Your task to perform on an android device: turn on the 24-hour format for clock Image 0: 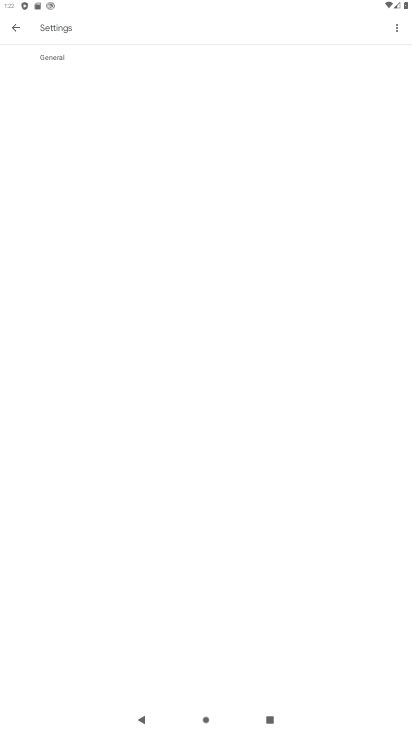
Step 0: press home button
Your task to perform on an android device: turn on the 24-hour format for clock Image 1: 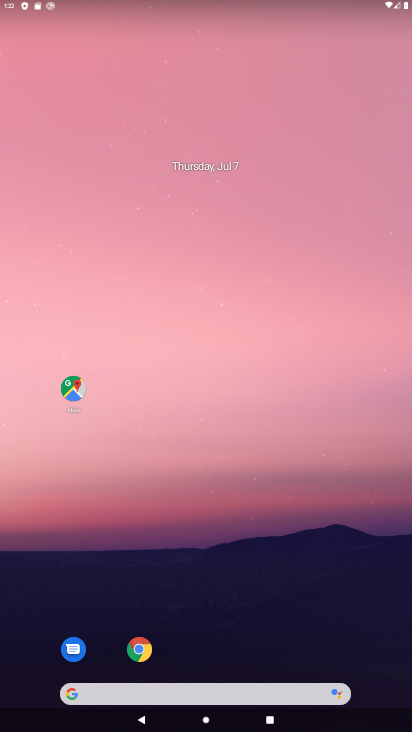
Step 1: drag from (369, 4) to (369, 42)
Your task to perform on an android device: turn on the 24-hour format for clock Image 2: 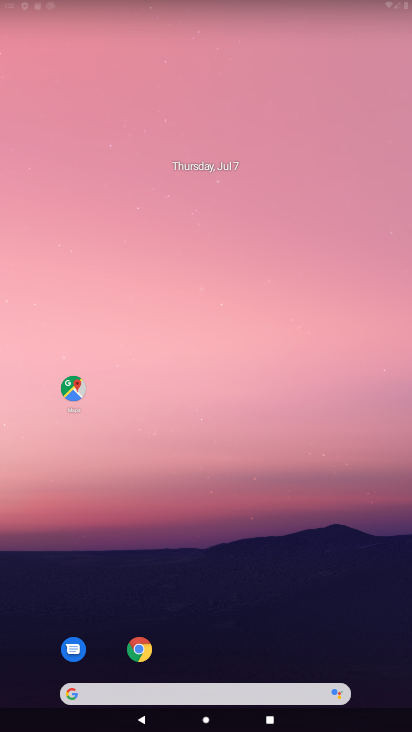
Step 2: drag from (321, 543) to (411, 21)
Your task to perform on an android device: turn on the 24-hour format for clock Image 3: 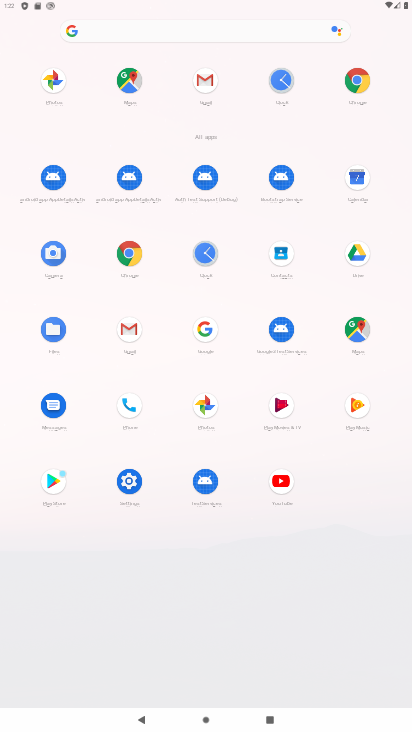
Step 3: click (201, 253)
Your task to perform on an android device: turn on the 24-hour format for clock Image 4: 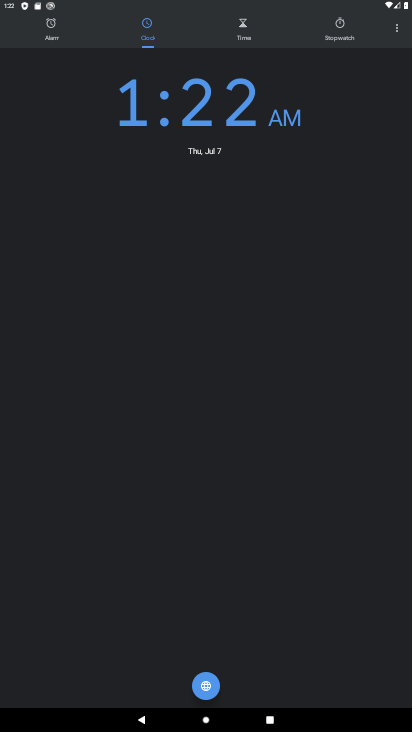
Step 4: click (399, 28)
Your task to perform on an android device: turn on the 24-hour format for clock Image 5: 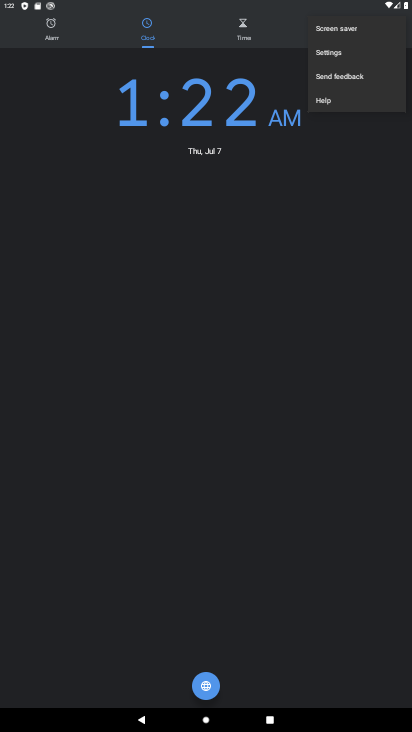
Step 5: click (326, 50)
Your task to perform on an android device: turn on the 24-hour format for clock Image 6: 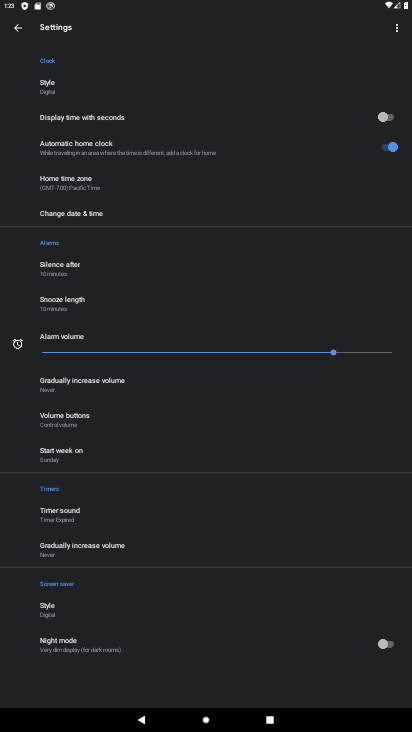
Step 6: click (90, 210)
Your task to perform on an android device: turn on the 24-hour format for clock Image 7: 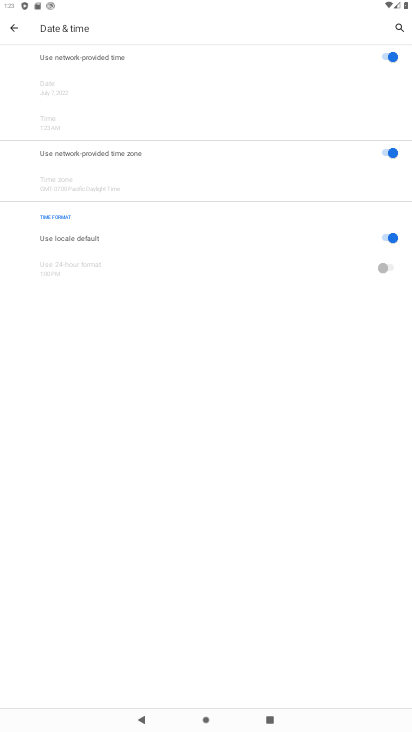
Step 7: click (162, 242)
Your task to perform on an android device: turn on the 24-hour format for clock Image 8: 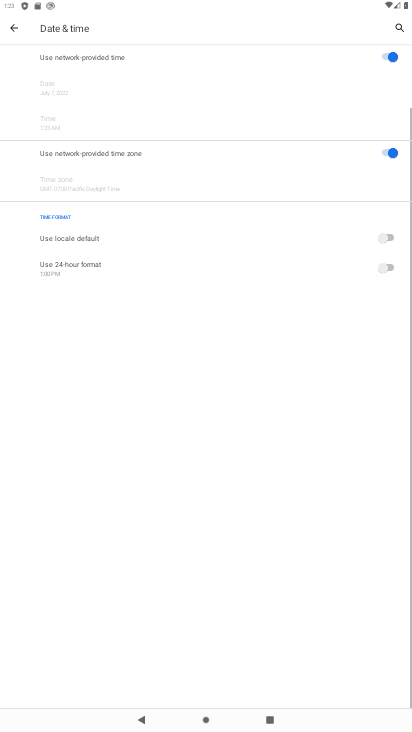
Step 8: click (162, 274)
Your task to perform on an android device: turn on the 24-hour format for clock Image 9: 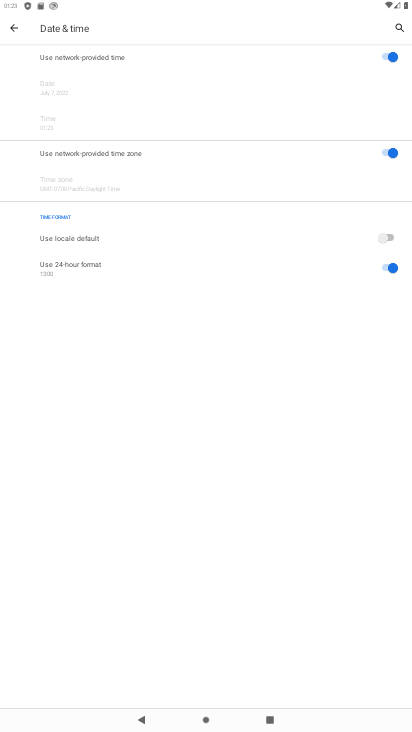
Step 9: task complete